Your task to perform on an android device: Go to calendar. Show me events next week Image 0: 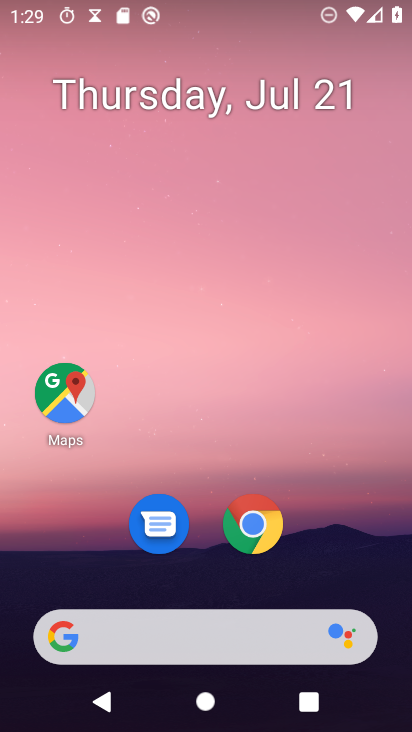
Step 0: drag from (142, 552) to (195, 205)
Your task to perform on an android device: Go to calendar. Show me events next week Image 1: 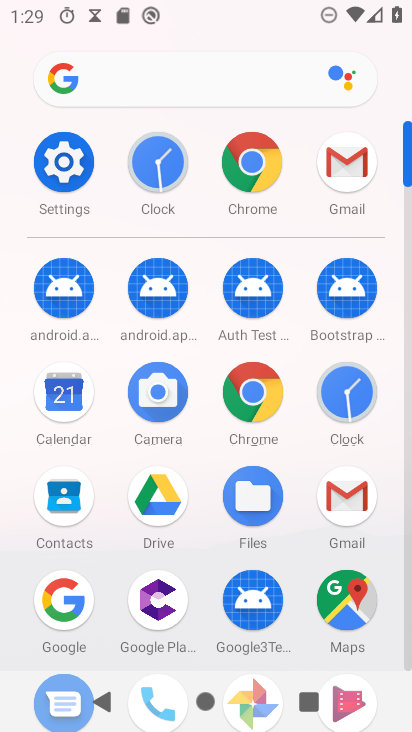
Step 1: click (60, 398)
Your task to perform on an android device: Go to calendar. Show me events next week Image 2: 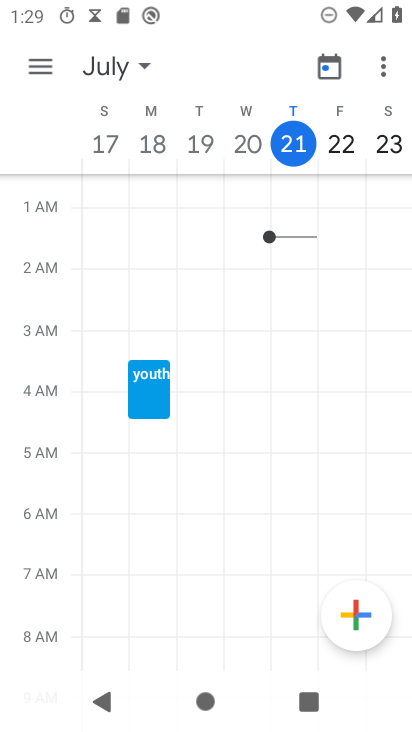
Step 2: click (107, 64)
Your task to perform on an android device: Go to calendar. Show me events next week Image 3: 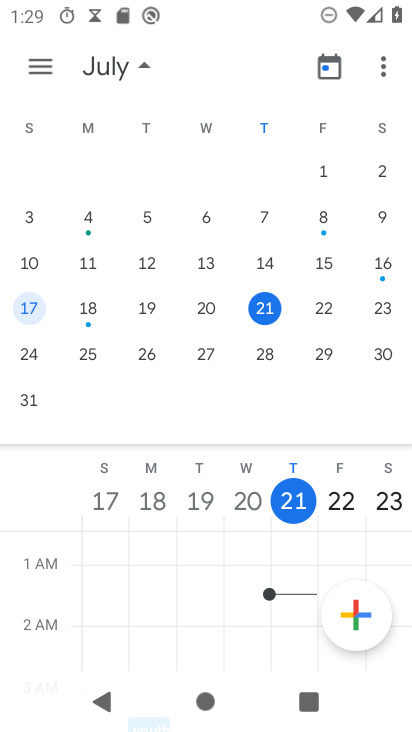
Step 3: click (32, 365)
Your task to perform on an android device: Go to calendar. Show me events next week Image 4: 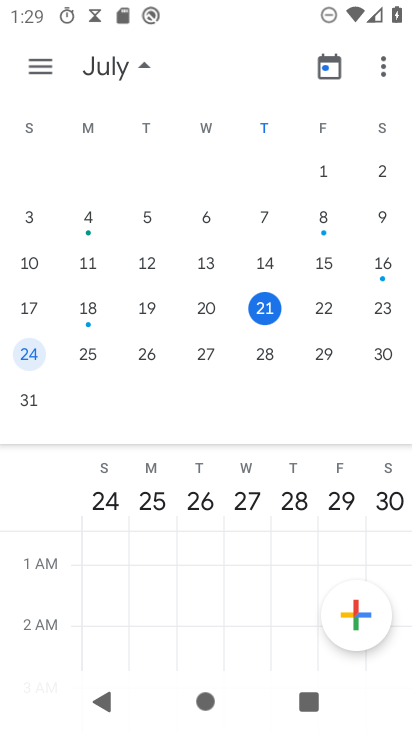
Step 4: click (43, 64)
Your task to perform on an android device: Go to calendar. Show me events next week Image 5: 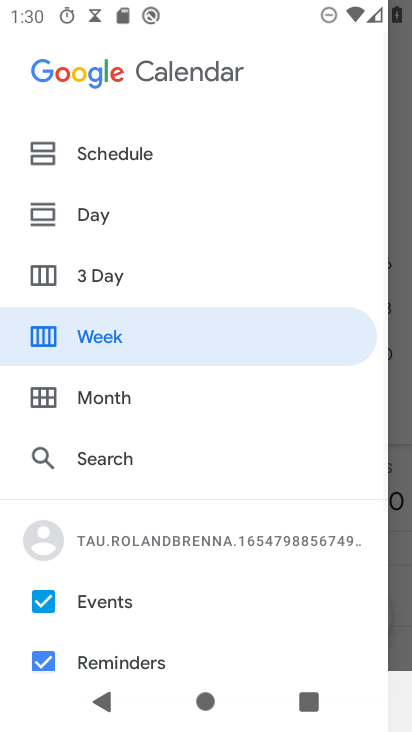
Step 5: click (95, 162)
Your task to perform on an android device: Go to calendar. Show me events next week Image 6: 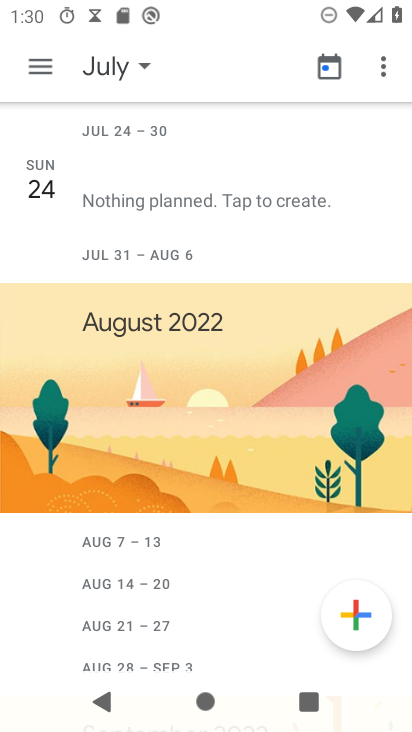
Step 6: task complete